Your task to perform on an android device: turn off location Image 0: 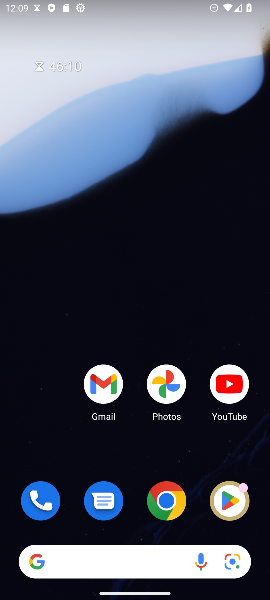
Step 0: drag from (134, 443) to (73, 13)
Your task to perform on an android device: turn off location Image 1: 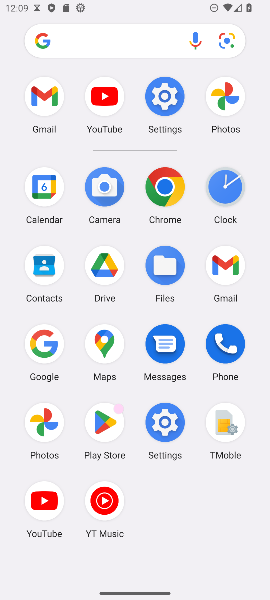
Step 1: click (157, 424)
Your task to perform on an android device: turn off location Image 2: 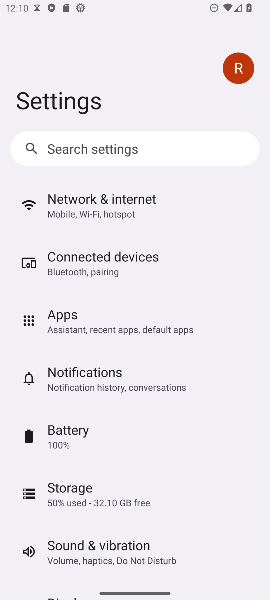
Step 2: click (80, 312)
Your task to perform on an android device: turn off location Image 3: 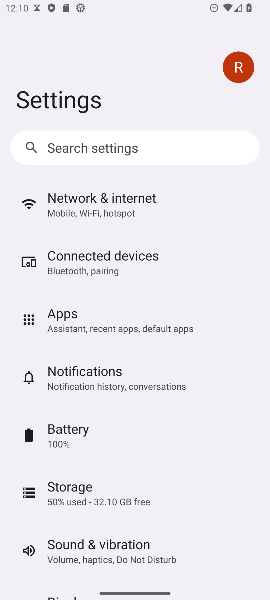
Step 3: drag from (65, 494) to (94, 257)
Your task to perform on an android device: turn off location Image 4: 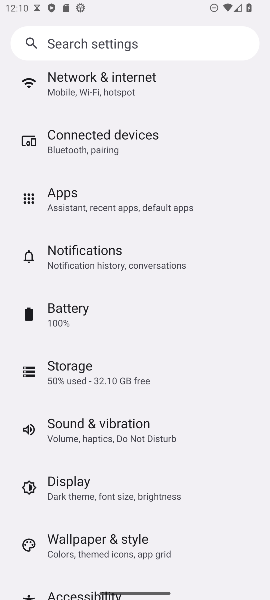
Step 4: drag from (83, 452) to (84, 292)
Your task to perform on an android device: turn off location Image 5: 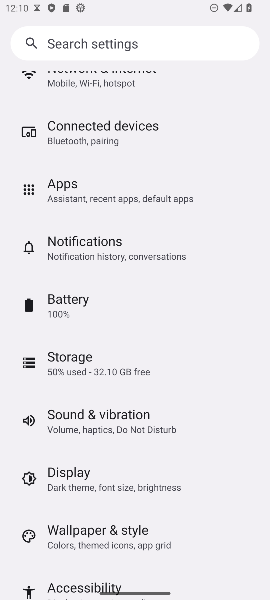
Step 5: drag from (103, 351) to (124, 259)
Your task to perform on an android device: turn off location Image 6: 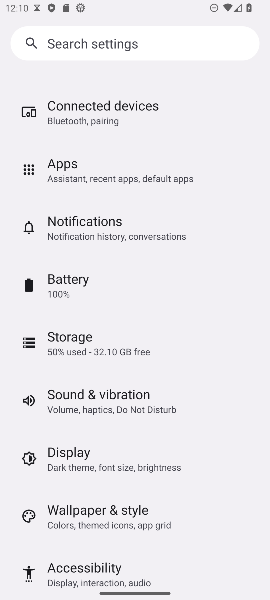
Step 6: drag from (139, 524) to (135, 322)
Your task to perform on an android device: turn off location Image 7: 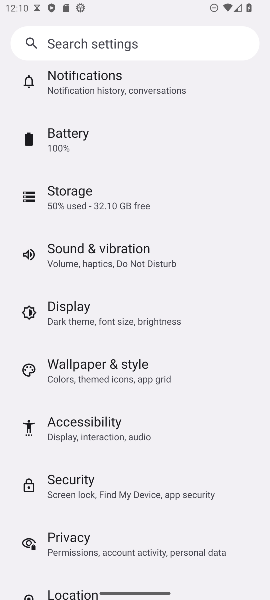
Step 7: click (55, 598)
Your task to perform on an android device: turn off location Image 8: 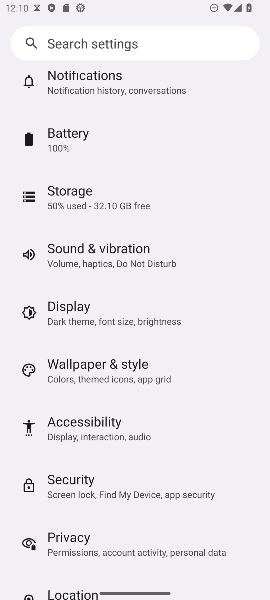
Step 8: click (87, 590)
Your task to perform on an android device: turn off location Image 9: 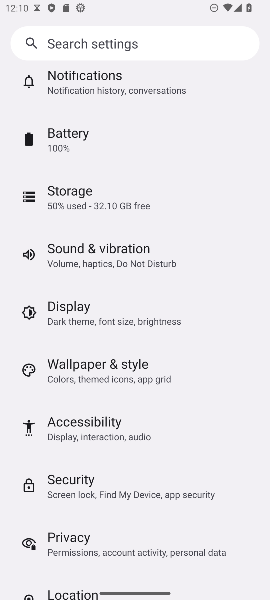
Step 9: click (87, 582)
Your task to perform on an android device: turn off location Image 10: 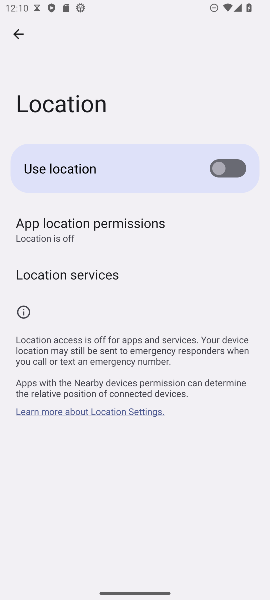
Step 10: task complete